Your task to perform on an android device: open device folders in google photos Image 0: 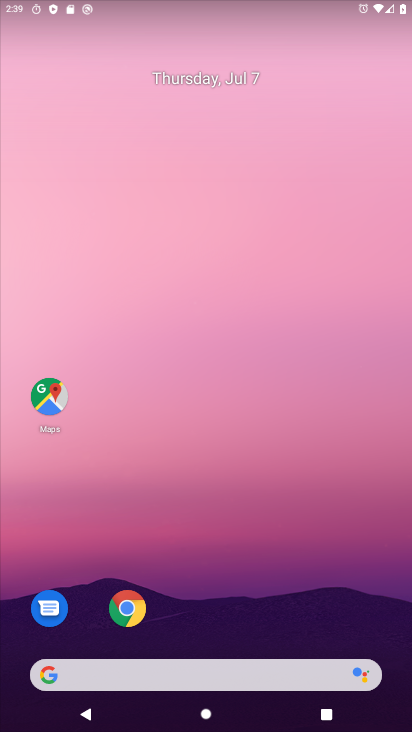
Step 0: drag from (273, 718) to (260, 108)
Your task to perform on an android device: open device folders in google photos Image 1: 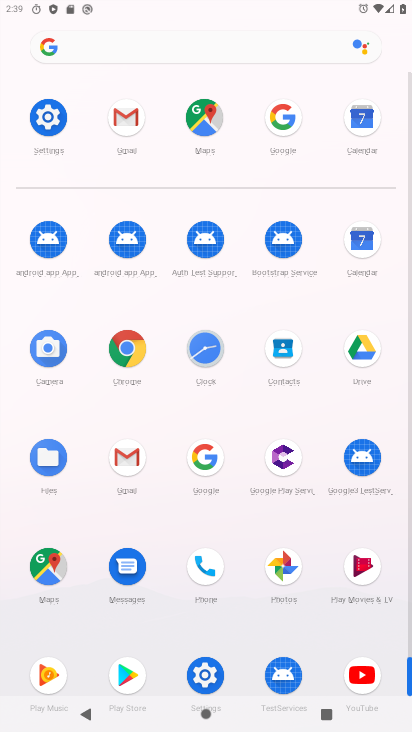
Step 1: click (283, 563)
Your task to perform on an android device: open device folders in google photos Image 2: 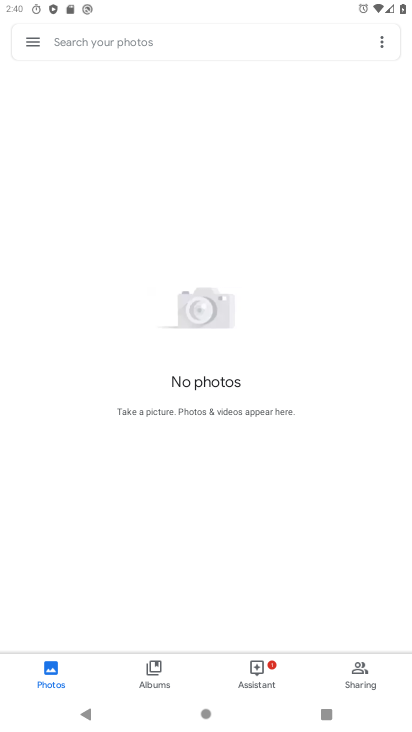
Step 2: click (34, 36)
Your task to perform on an android device: open device folders in google photos Image 3: 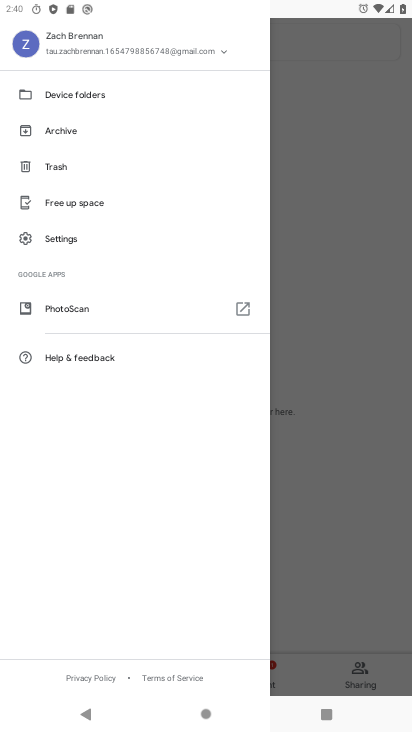
Step 3: click (56, 91)
Your task to perform on an android device: open device folders in google photos Image 4: 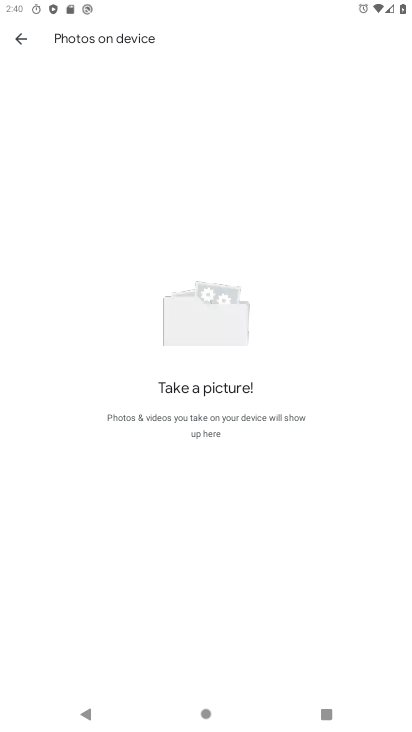
Step 4: task complete